Your task to perform on an android device: What's on my calendar tomorrow? Image 0: 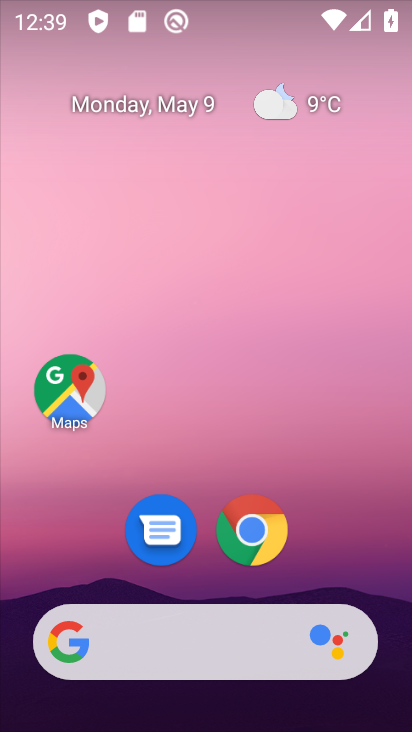
Step 0: drag from (313, 522) to (284, 137)
Your task to perform on an android device: What's on my calendar tomorrow? Image 1: 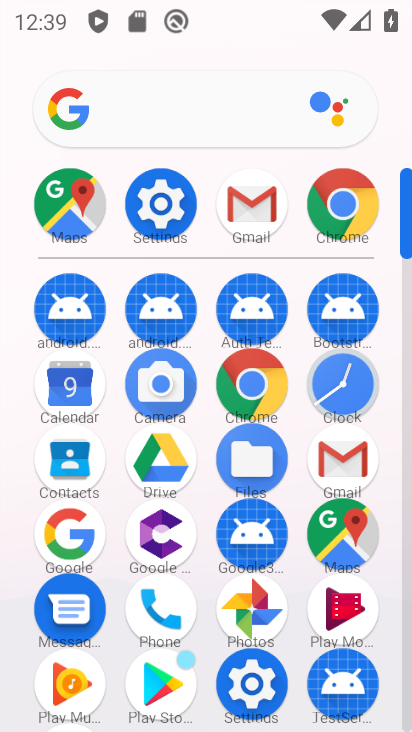
Step 1: click (59, 393)
Your task to perform on an android device: What's on my calendar tomorrow? Image 2: 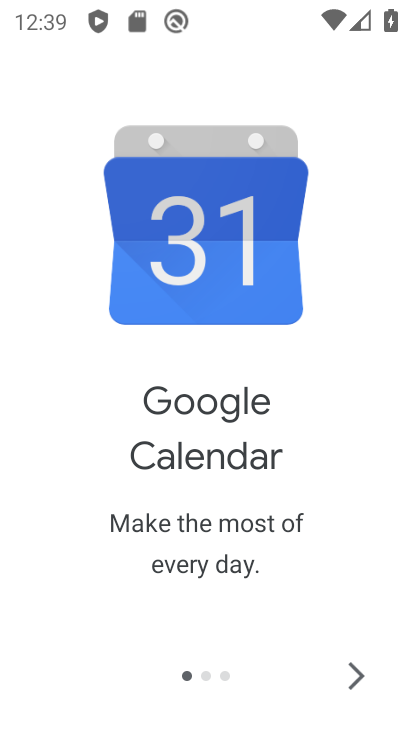
Step 2: click (338, 661)
Your task to perform on an android device: What's on my calendar tomorrow? Image 3: 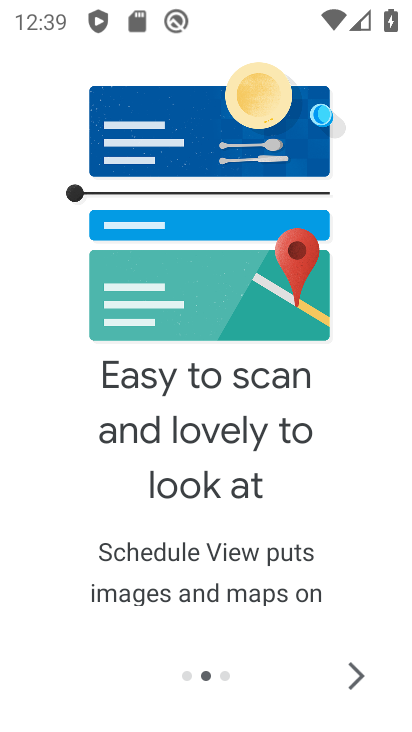
Step 3: click (340, 665)
Your task to perform on an android device: What's on my calendar tomorrow? Image 4: 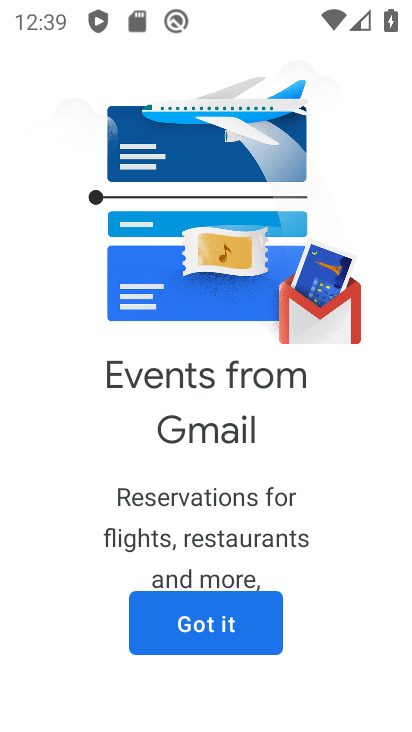
Step 4: click (342, 666)
Your task to perform on an android device: What's on my calendar tomorrow? Image 5: 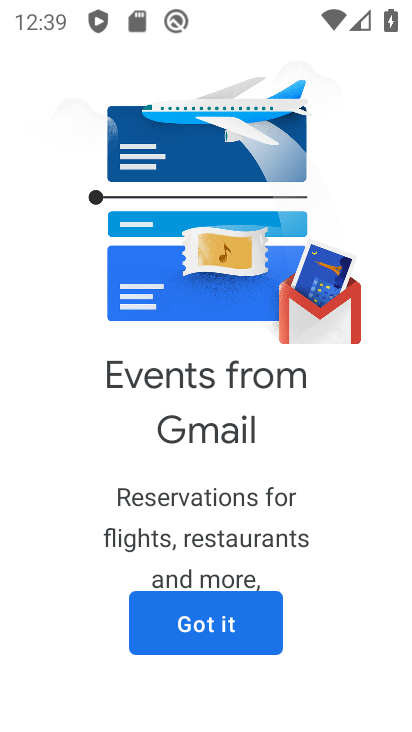
Step 5: click (220, 631)
Your task to perform on an android device: What's on my calendar tomorrow? Image 6: 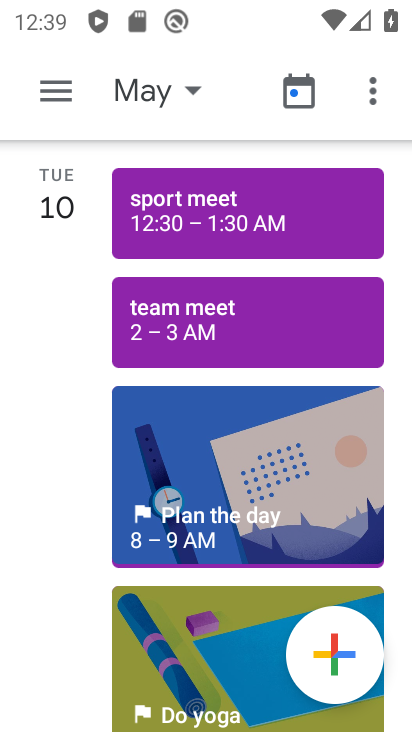
Step 6: click (58, 95)
Your task to perform on an android device: What's on my calendar tomorrow? Image 7: 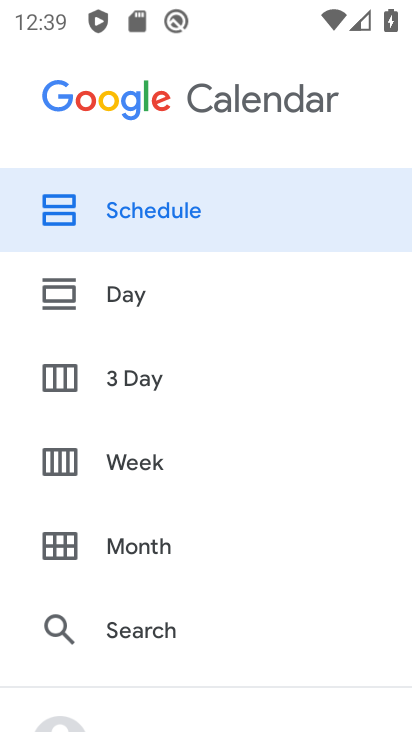
Step 7: click (126, 468)
Your task to perform on an android device: What's on my calendar tomorrow? Image 8: 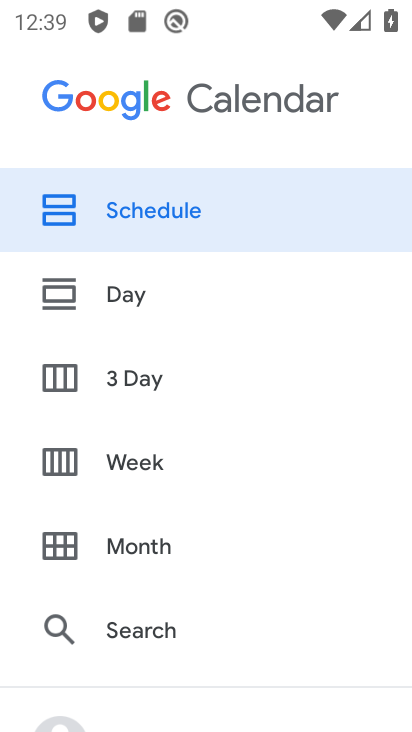
Step 8: click (150, 452)
Your task to perform on an android device: What's on my calendar tomorrow? Image 9: 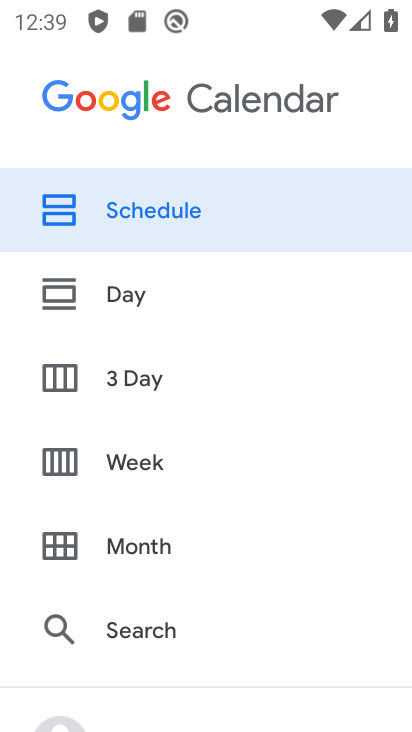
Step 9: click (105, 548)
Your task to perform on an android device: What's on my calendar tomorrow? Image 10: 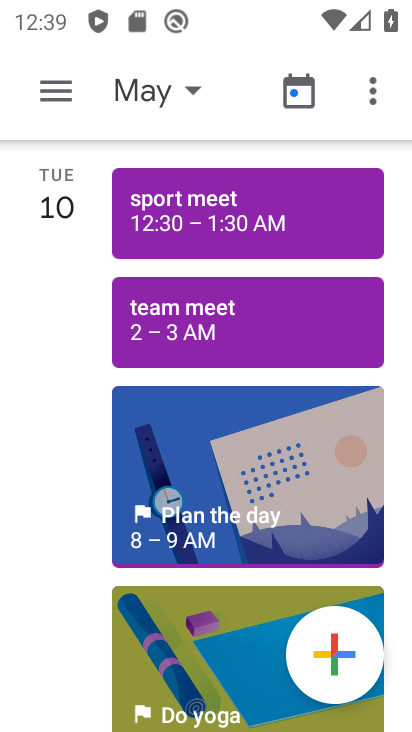
Step 10: click (105, 549)
Your task to perform on an android device: What's on my calendar tomorrow? Image 11: 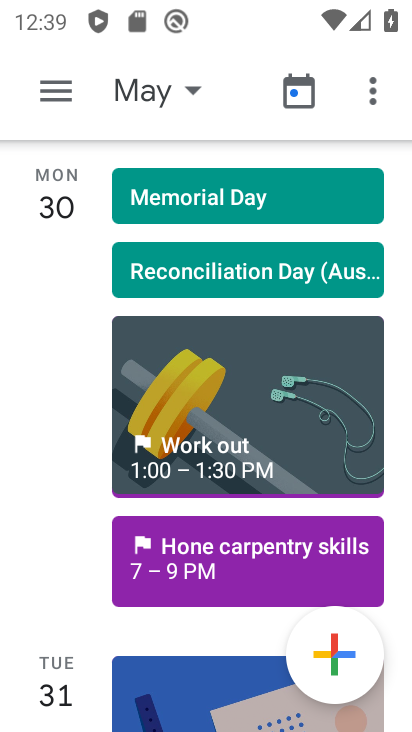
Step 11: click (65, 108)
Your task to perform on an android device: What's on my calendar tomorrow? Image 12: 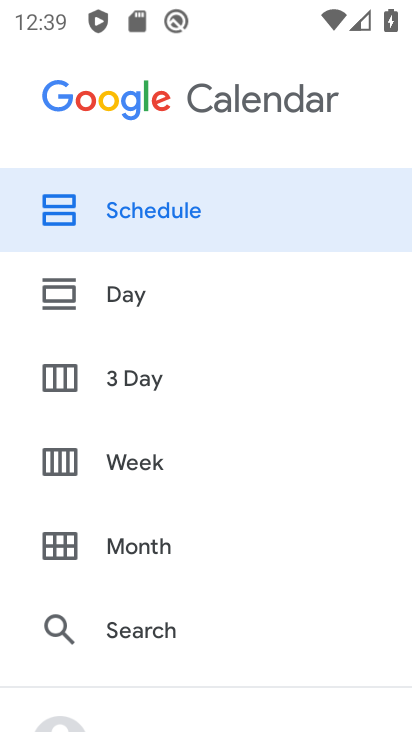
Step 12: click (164, 544)
Your task to perform on an android device: What's on my calendar tomorrow? Image 13: 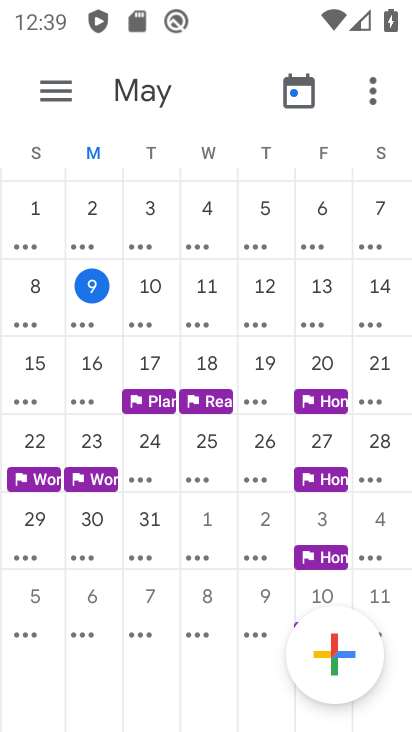
Step 13: click (151, 284)
Your task to perform on an android device: What's on my calendar tomorrow? Image 14: 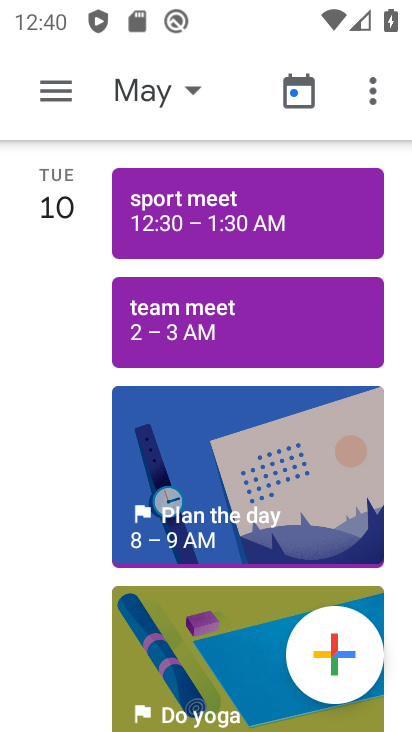
Step 14: task complete